Your task to perform on an android device: delete the emails in spam in the gmail app Image 0: 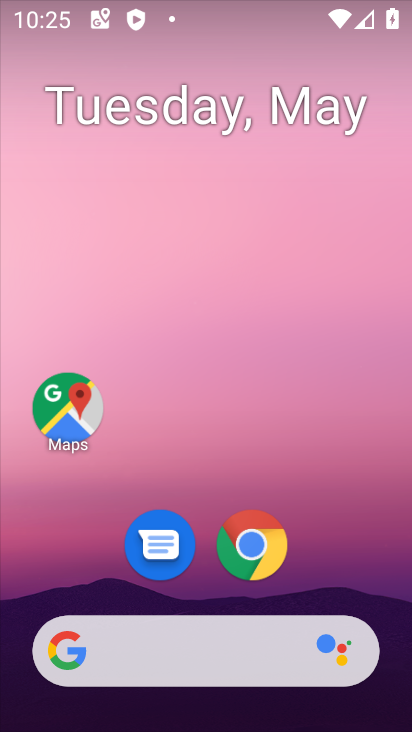
Step 0: drag from (202, 707) to (290, 31)
Your task to perform on an android device: delete the emails in spam in the gmail app Image 1: 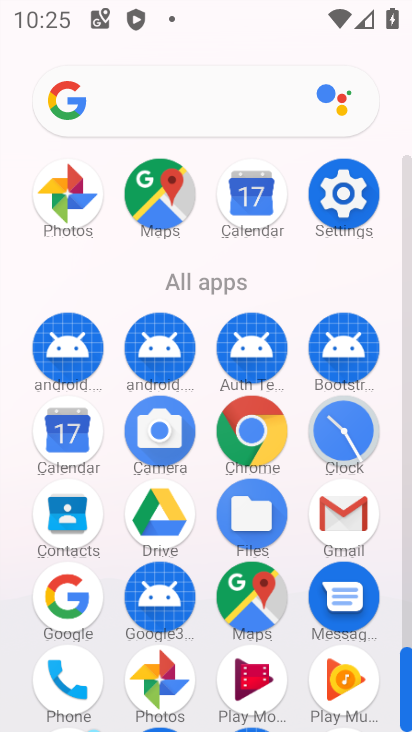
Step 1: click (345, 526)
Your task to perform on an android device: delete the emails in spam in the gmail app Image 2: 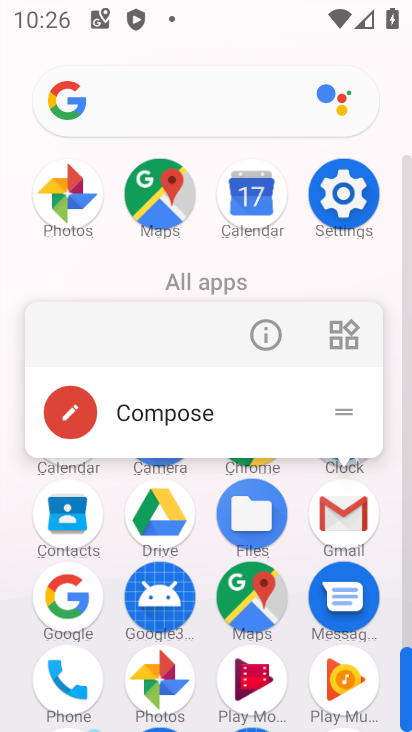
Step 2: click (344, 516)
Your task to perform on an android device: delete the emails in spam in the gmail app Image 3: 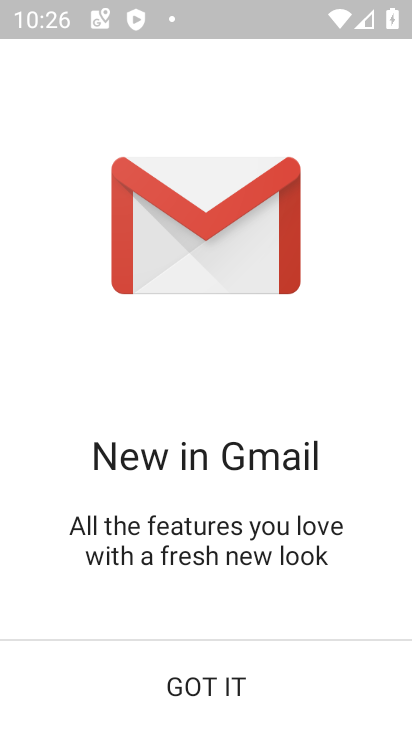
Step 3: click (231, 675)
Your task to perform on an android device: delete the emails in spam in the gmail app Image 4: 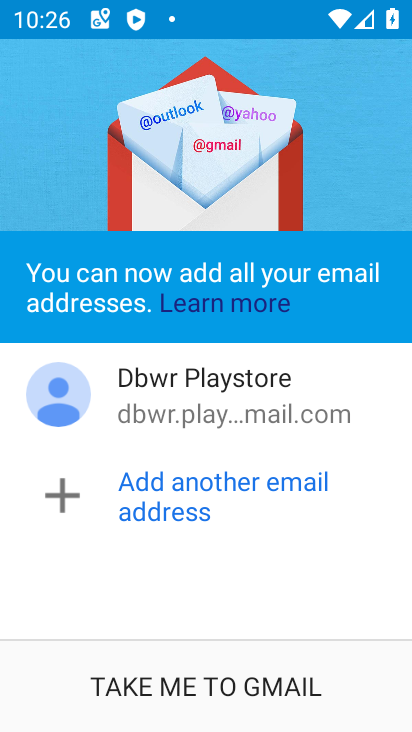
Step 4: click (252, 693)
Your task to perform on an android device: delete the emails in spam in the gmail app Image 5: 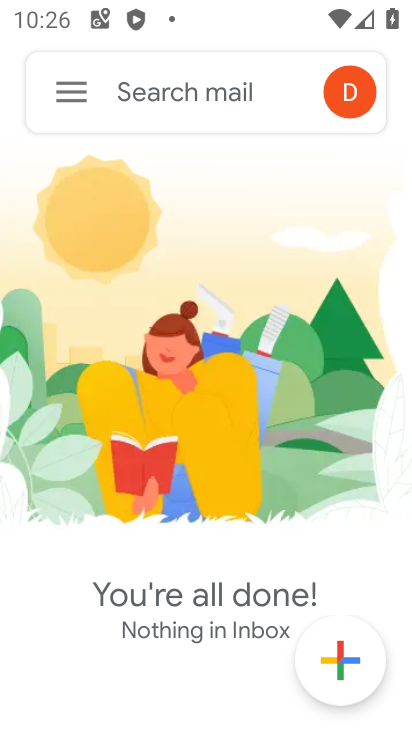
Step 5: click (66, 102)
Your task to perform on an android device: delete the emails in spam in the gmail app Image 6: 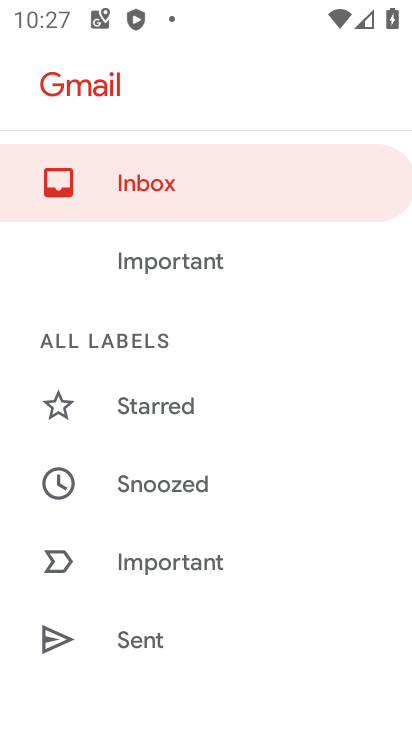
Step 6: drag from (217, 538) to (221, 217)
Your task to perform on an android device: delete the emails in spam in the gmail app Image 7: 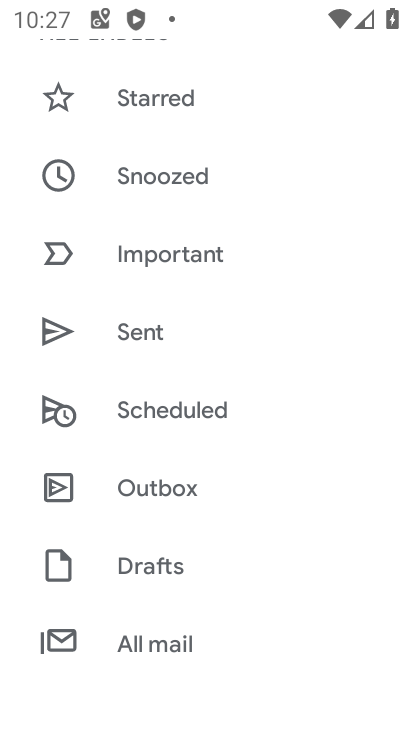
Step 7: drag from (224, 571) to (209, 214)
Your task to perform on an android device: delete the emails in spam in the gmail app Image 8: 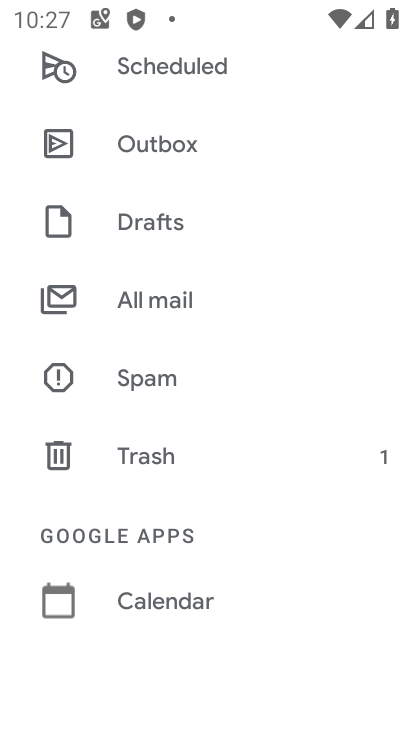
Step 8: drag from (215, 259) to (259, 722)
Your task to perform on an android device: delete the emails in spam in the gmail app Image 9: 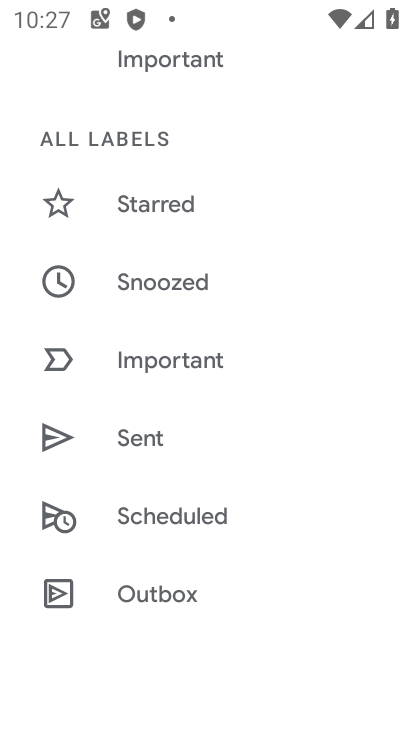
Step 9: drag from (236, 304) to (268, 648)
Your task to perform on an android device: delete the emails in spam in the gmail app Image 10: 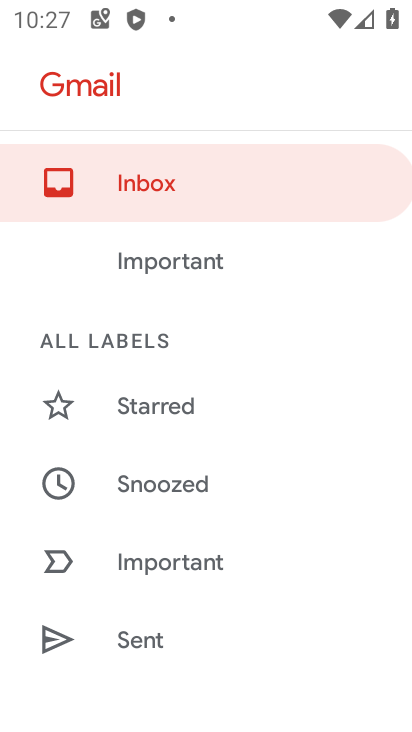
Step 10: drag from (189, 543) to (206, 394)
Your task to perform on an android device: delete the emails in spam in the gmail app Image 11: 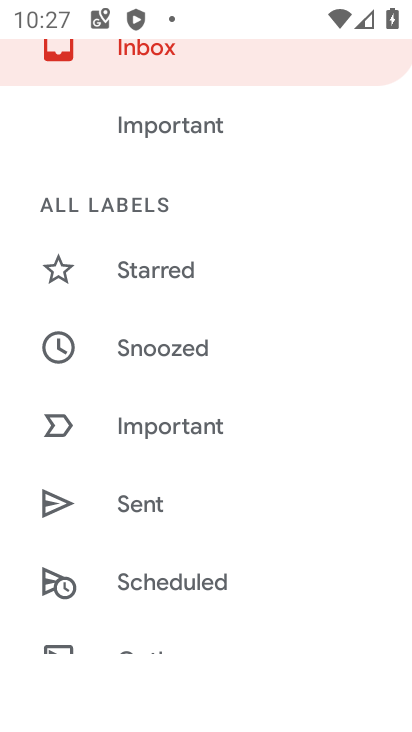
Step 11: drag from (213, 590) to (215, 310)
Your task to perform on an android device: delete the emails in spam in the gmail app Image 12: 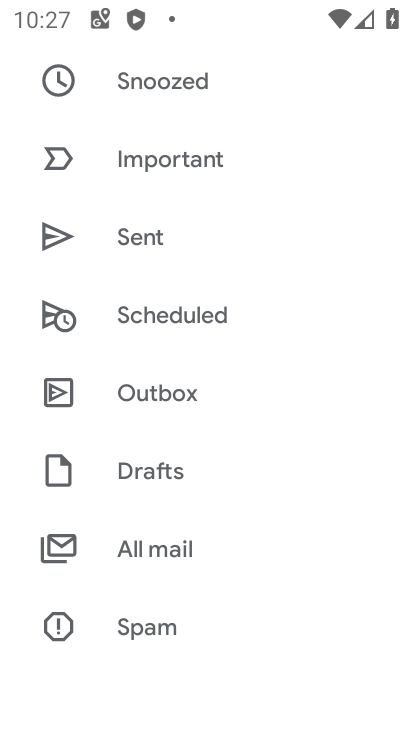
Step 12: click (198, 621)
Your task to perform on an android device: delete the emails in spam in the gmail app Image 13: 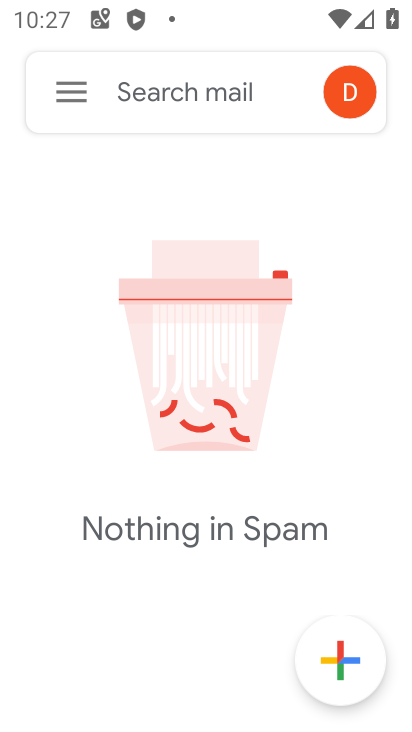
Step 13: task complete